Your task to perform on an android device: toggle pop-ups in chrome Image 0: 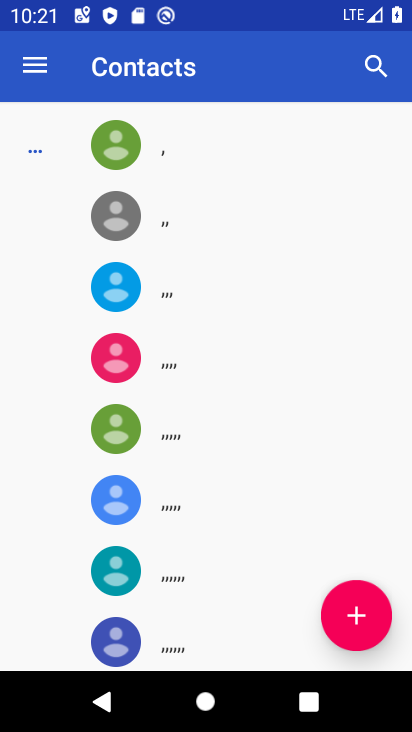
Step 0: press home button
Your task to perform on an android device: toggle pop-ups in chrome Image 1: 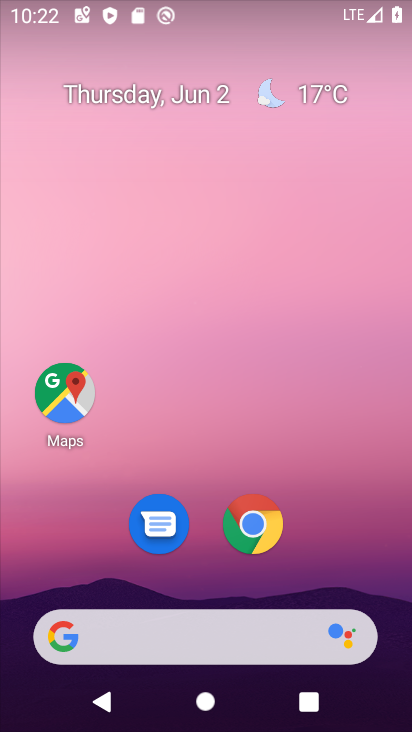
Step 1: click (260, 516)
Your task to perform on an android device: toggle pop-ups in chrome Image 2: 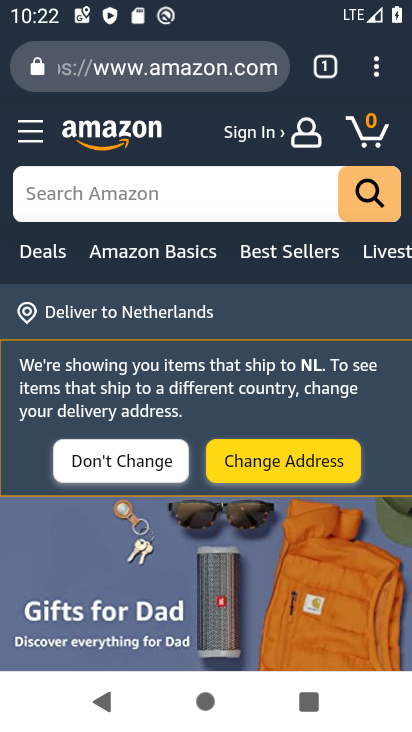
Step 2: click (373, 69)
Your task to perform on an android device: toggle pop-ups in chrome Image 3: 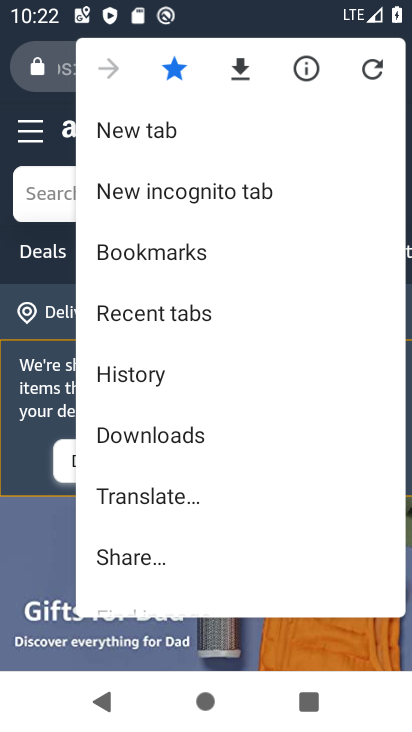
Step 3: drag from (250, 469) to (234, 100)
Your task to perform on an android device: toggle pop-ups in chrome Image 4: 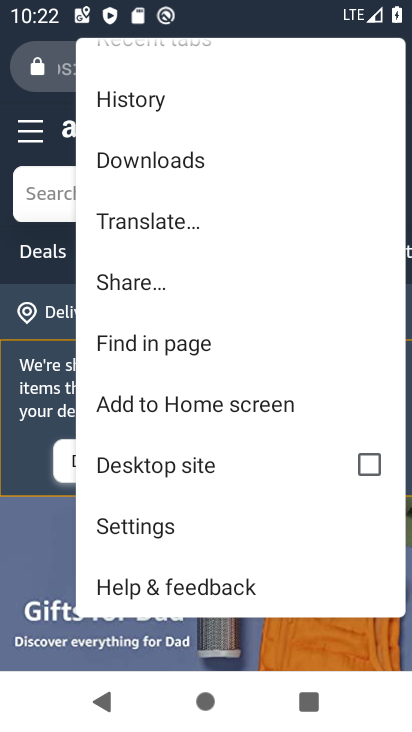
Step 4: drag from (234, 493) to (243, 297)
Your task to perform on an android device: toggle pop-ups in chrome Image 5: 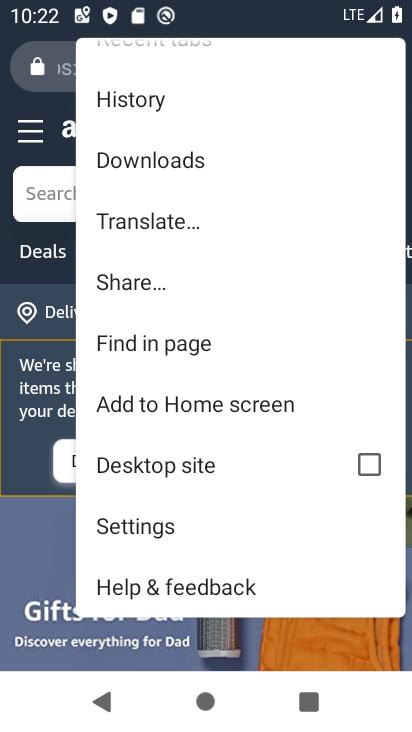
Step 5: click (223, 525)
Your task to perform on an android device: toggle pop-ups in chrome Image 6: 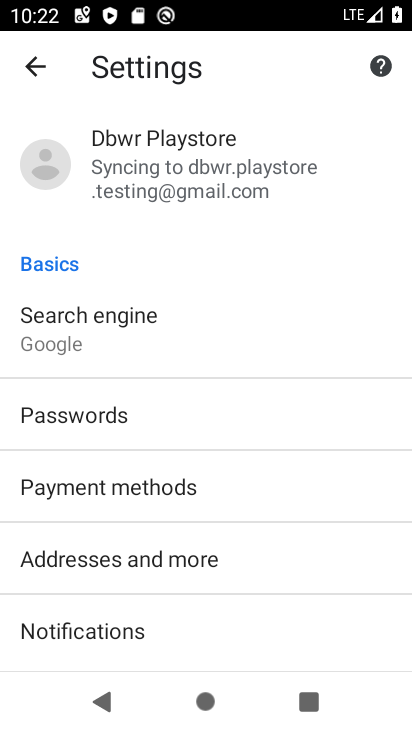
Step 6: drag from (273, 483) to (261, 93)
Your task to perform on an android device: toggle pop-ups in chrome Image 7: 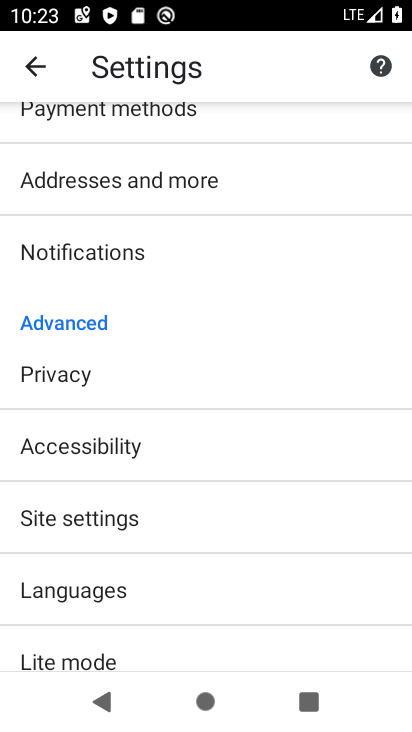
Step 7: click (246, 524)
Your task to perform on an android device: toggle pop-ups in chrome Image 8: 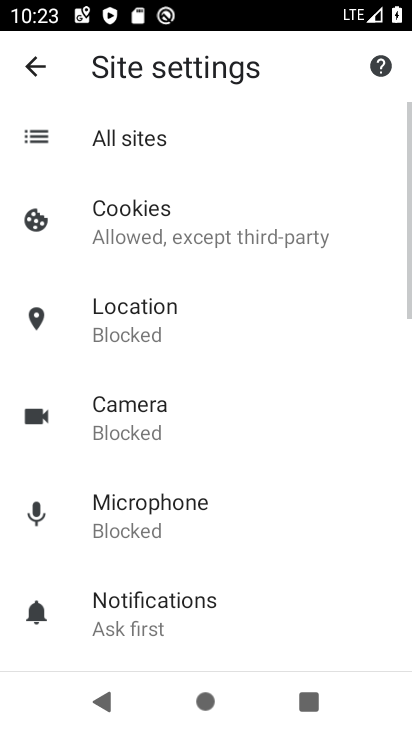
Step 8: drag from (260, 545) to (220, 159)
Your task to perform on an android device: toggle pop-ups in chrome Image 9: 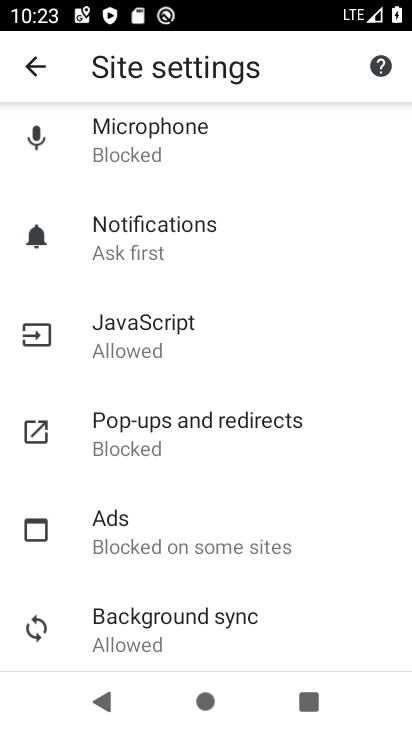
Step 9: click (226, 421)
Your task to perform on an android device: toggle pop-ups in chrome Image 10: 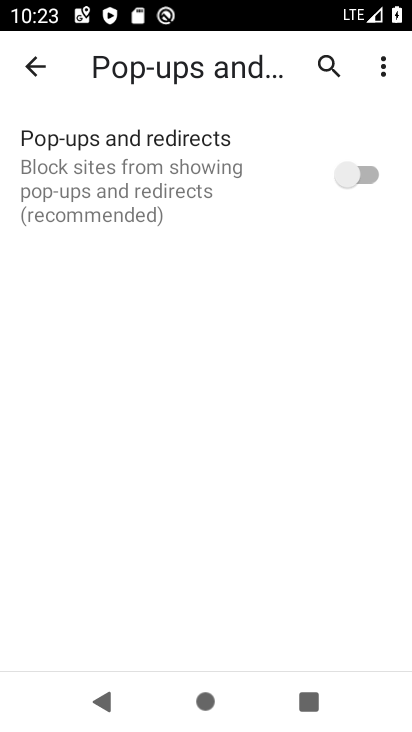
Step 10: click (356, 170)
Your task to perform on an android device: toggle pop-ups in chrome Image 11: 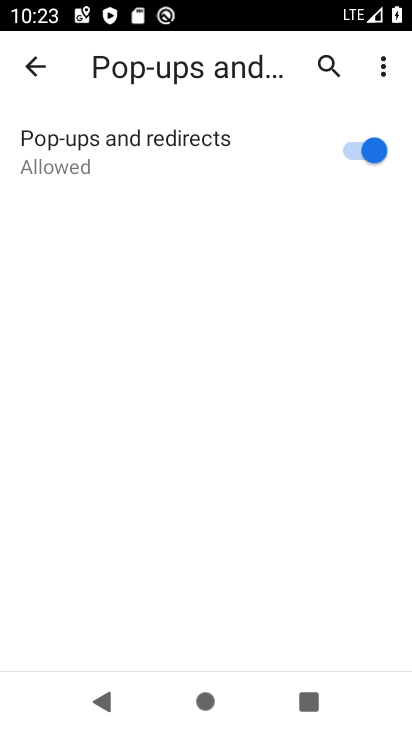
Step 11: task complete